Your task to perform on an android device: Open Android settings Image 0: 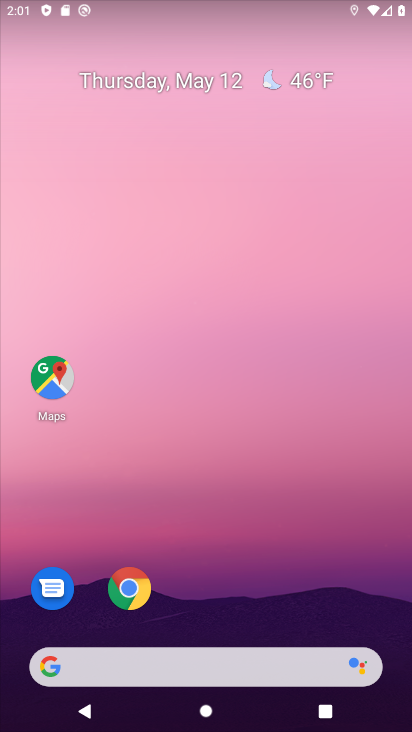
Step 0: drag from (391, 644) to (293, 38)
Your task to perform on an android device: Open Android settings Image 1: 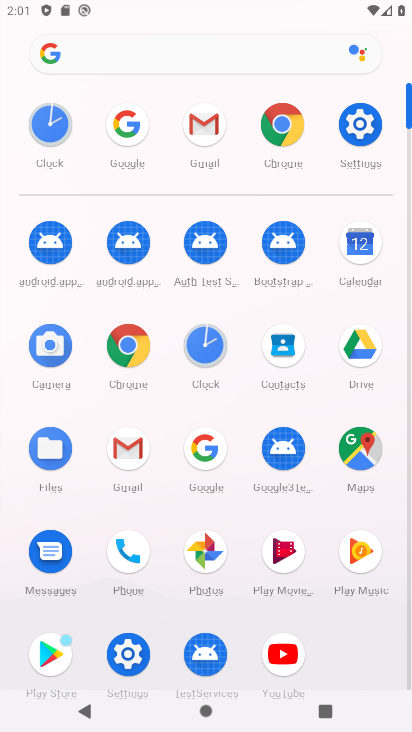
Step 1: click (132, 652)
Your task to perform on an android device: Open Android settings Image 2: 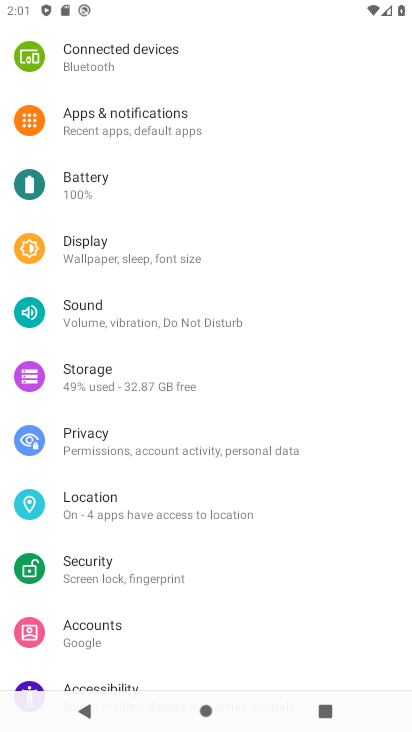
Step 2: drag from (143, 588) to (224, 91)
Your task to perform on an android device: Open Android settings Image 3: 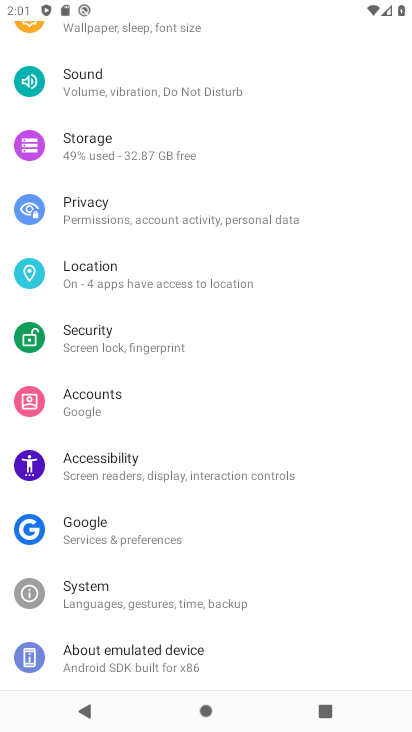
Step 3: click (120, 672)
Your task to perform on an android device: Open Android settings Image 4: 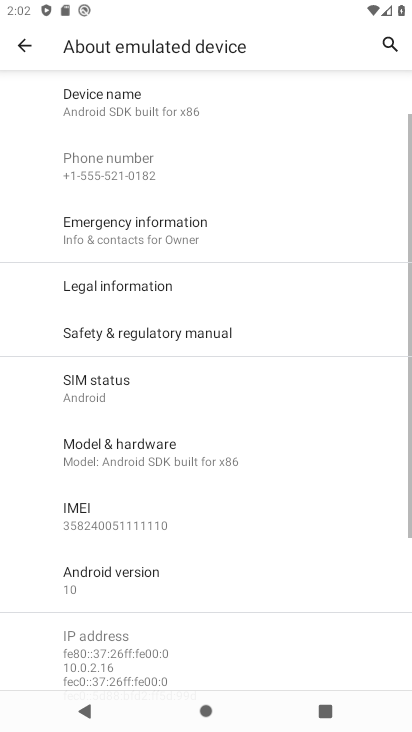
Step 4: click (194, 604)
Your task to perform on an android device: Open Android settings Image 5: 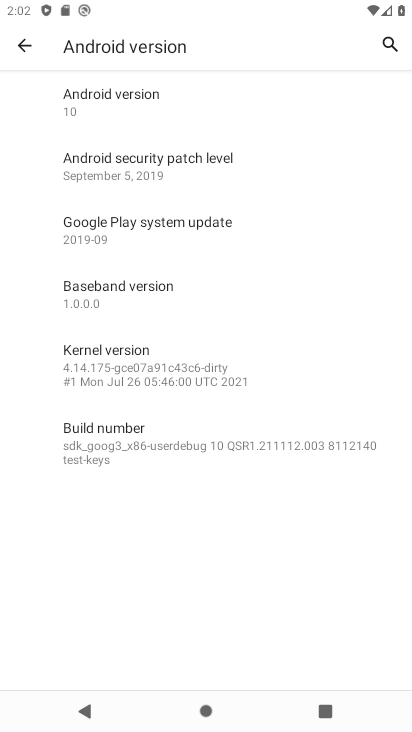
Step 5: task complete